Your task to perform on an android device: What is the recent news? Image 0: 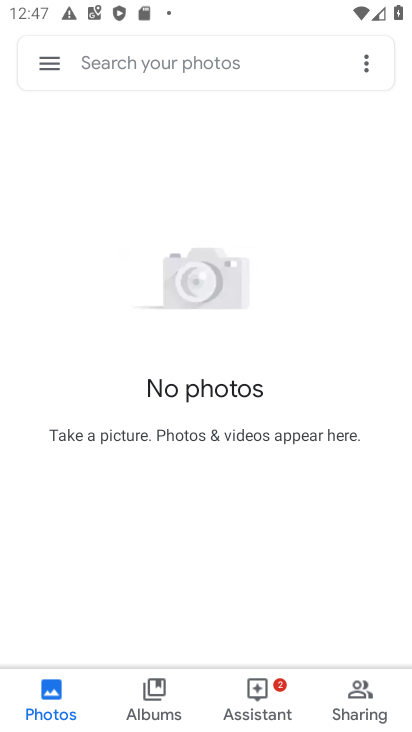
Step 0: task complete